Your task to perform on an android device: clear history in the chrome app Image 0: 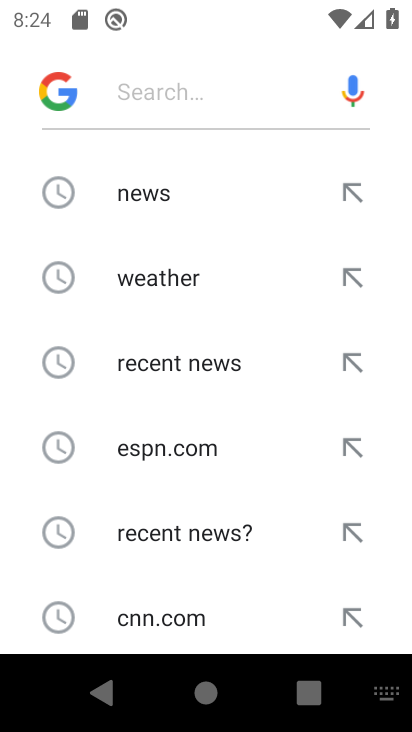
Step 0: press home button
Your task to perform on an android device: clear history in the chrome app Image 1: 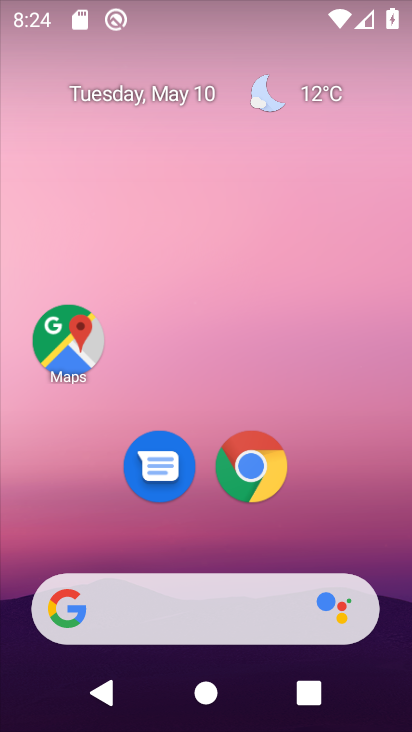
Step 1: click (251, 470)
Your task to perform on an android device: clear history in the chrome app Image 2: 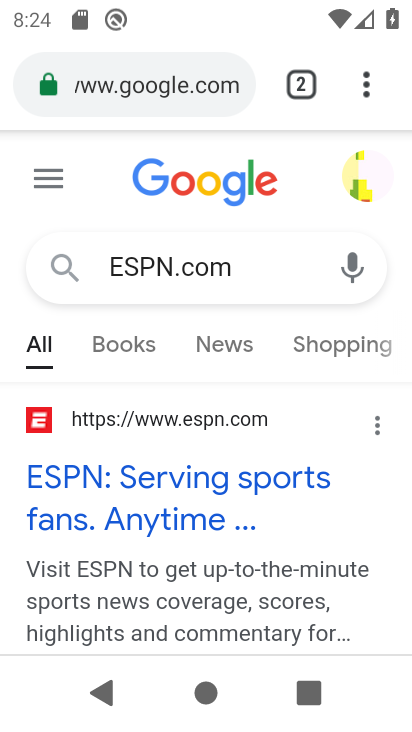
Step 2: click (368, 76)
Your task to perform on an android device: clear history in the chrome app Image 3: 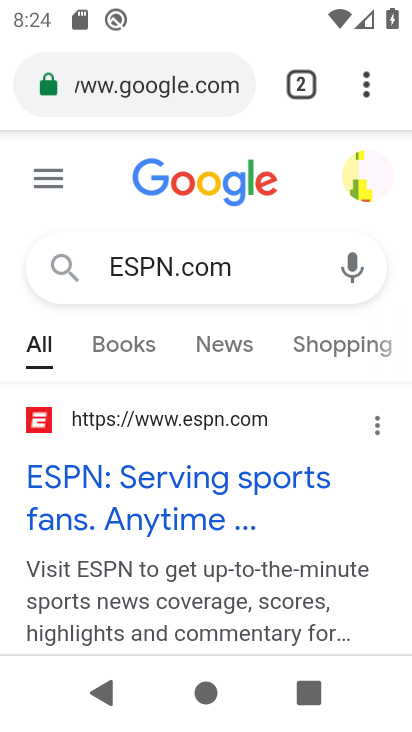
Step 3: click (373, 87)
Your task to perform on an android device: clear history in the chrome app Image 4: 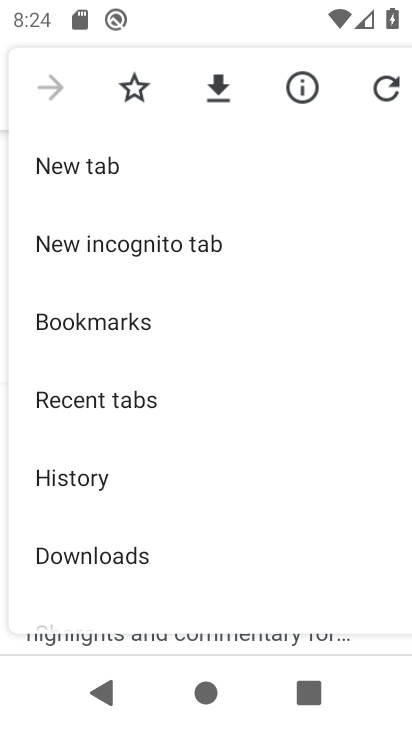
Step 4: click (64, 478)
Your task to perform on an android device: clear history in the chrome app Image 5: 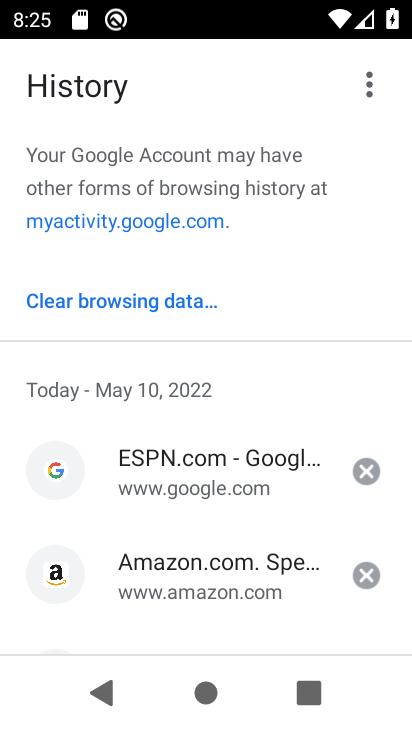
Step 5: click (142, 301)
Your task to perform on an android device: clear history in the chrome app Image 6: 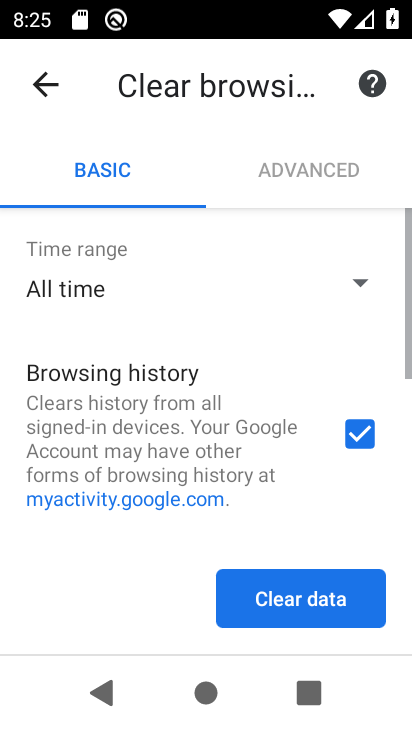
Step 6: drag from (141, 472) to (185, 254)
Your task to perform on an android device: clear history in the chrome app Image 7: 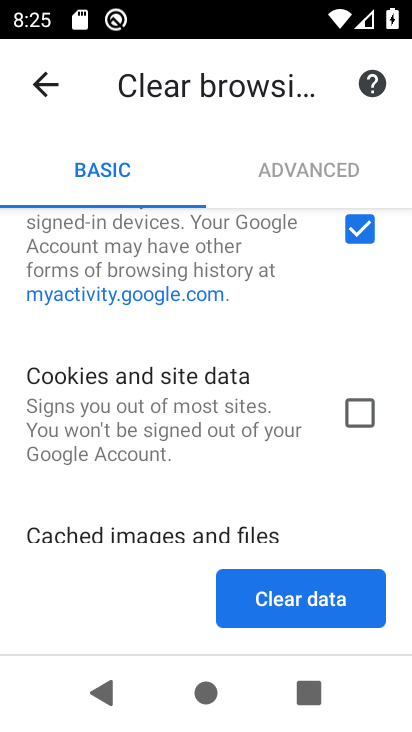
Step 7: drag from (295, 494) to (320, 210)
Your task to perform on an android device: clear history in the chrome app Image 8: 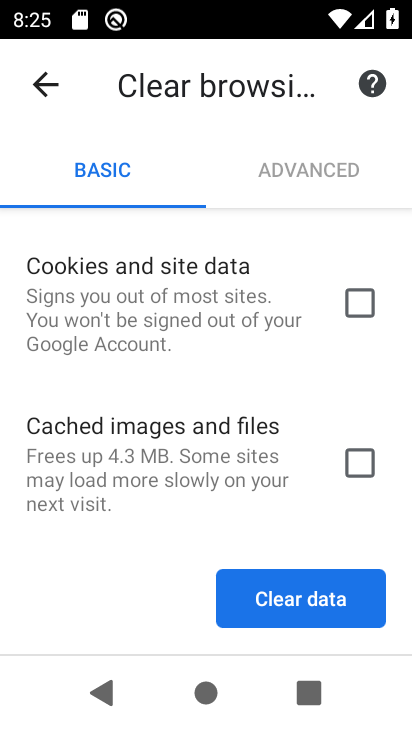
Step 8: click (271, 600)
Your task to perform on an android device: clear history in the chrome app Image 9: 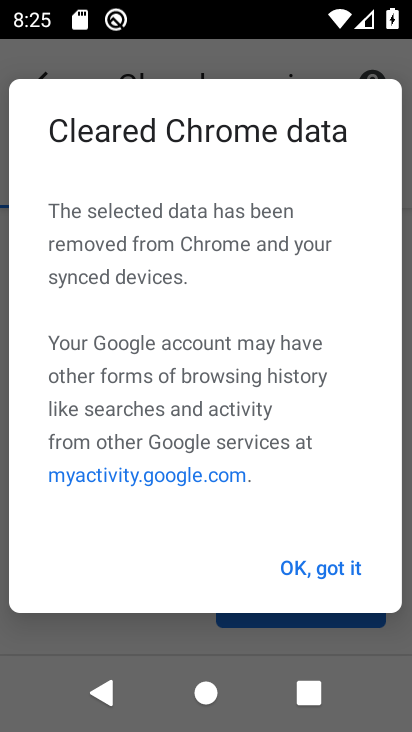
Step 9: click (298, 578)
Your task to perform on an android device: clear history in the chrome app Image 10: 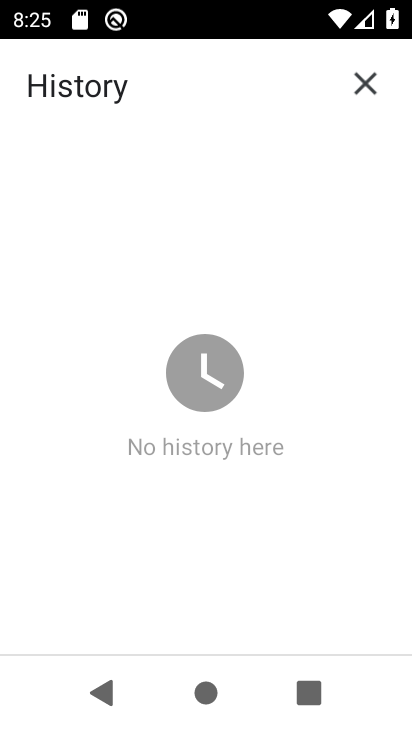
Step 10: task complete